Your task to perform on an android device: Search for seafood restaurants on Google Maps Image 0: 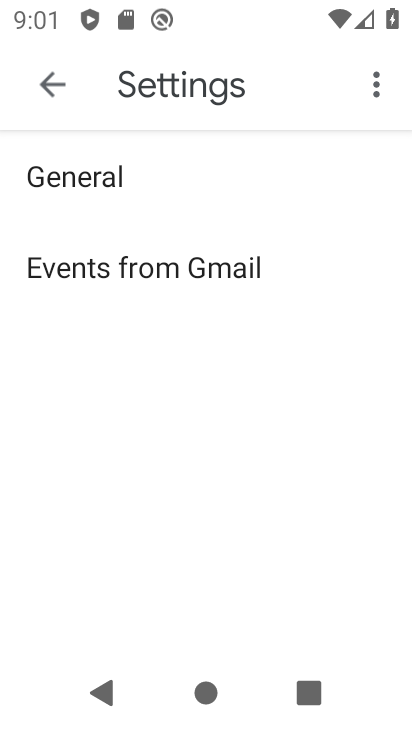
Step 0: press home button
Your task to perform on an android device: Search for seafood restaurants on Google Maps Image 1: 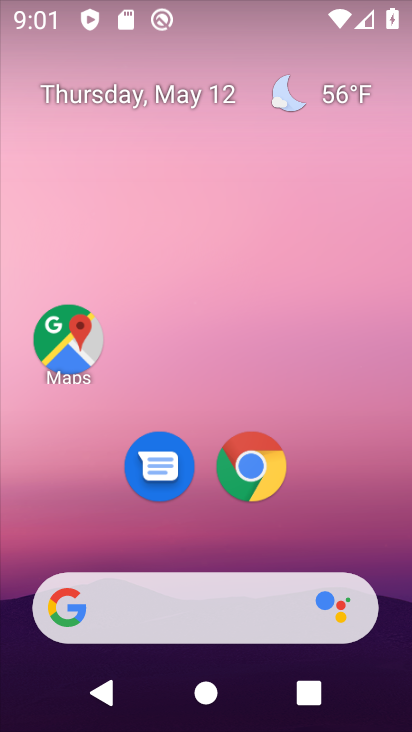
Step 1: click (89, 337)
Your task to perform on an android device: Search for seafood restaurants on Google Maps Image 2: 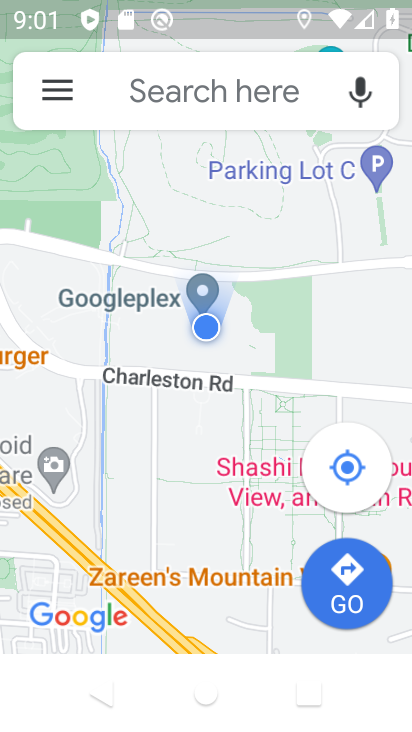
Step 2: click (177, 98)
Your task to perform on an android device: Search for seafood restaurants on Google Maps Image 3: 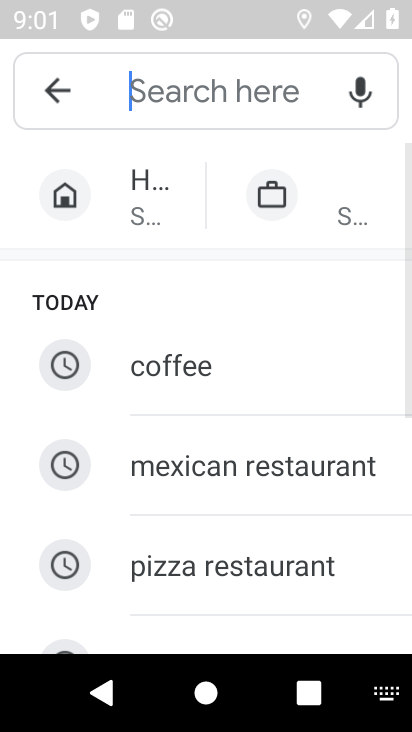
Step 3: drag from (287, 564) to (280, 245)
Your task to perform on an android device: Search for seafood restaurants on Google Maps Image 4: 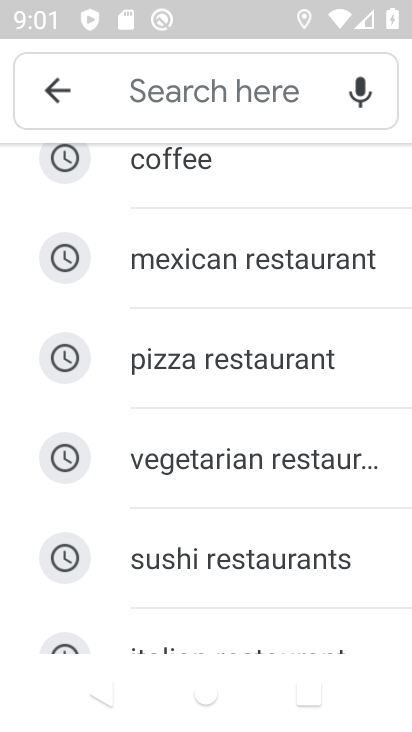
Step 4: drag from (256, 595) to (257, 290)
Your task to perform on an android device: Search for seafood restaurants on Google Maps Image 5: 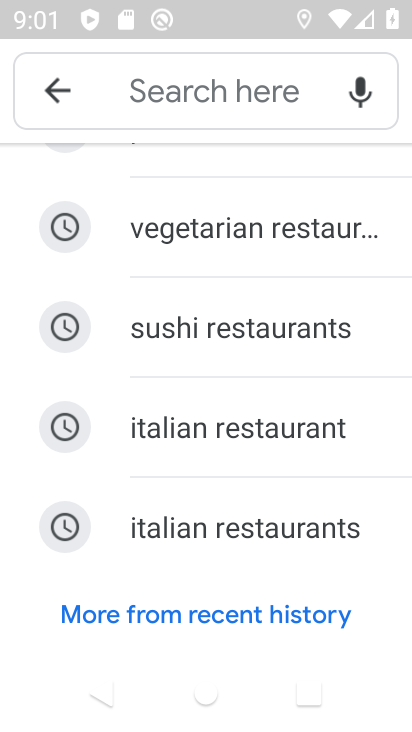
Step 5: click (210, 622)
Your task to perform on an android device: Search for seafood restaurants on Google Maps Image 6: 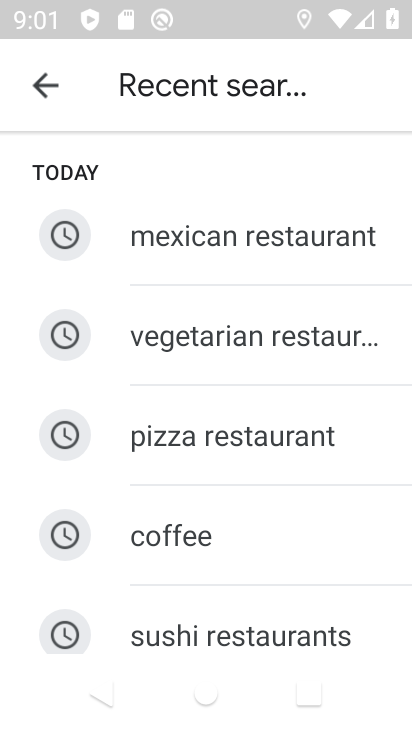
Step 6: drag from (212, 608) to (196, 219)
Your task to perform on an android device: Search for seafood restaurants on Google Maps Image 7: 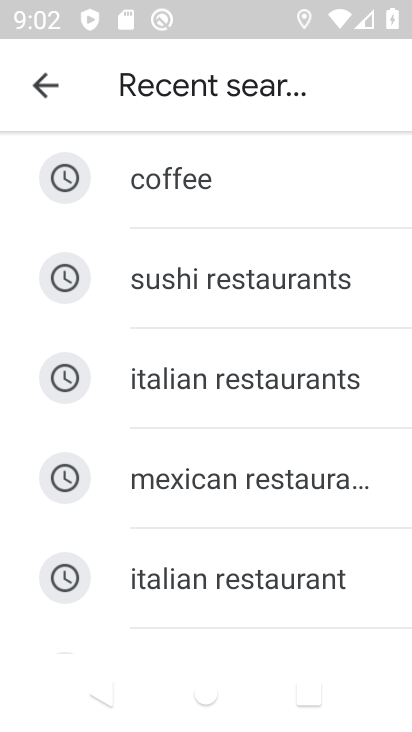
Step 7: drag from (237, 563) to (215, 286)
Your task to perform on an android device: Search for seafood restaurants on Google Maps Image 8: 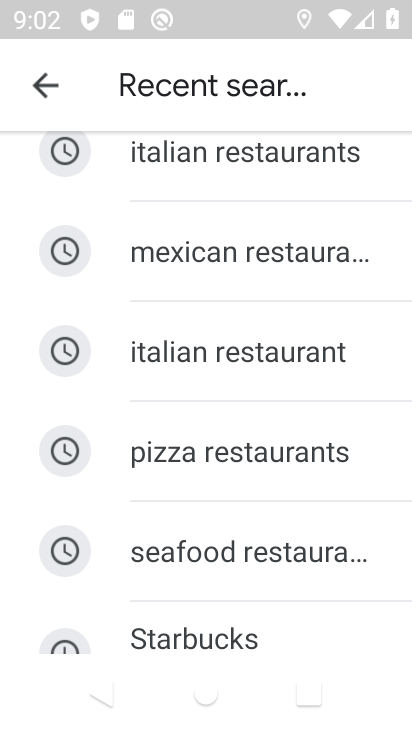
Step 8: click (239, 561)
Your task to perform on an android device: Search for seafood restaurants on Google Maps Image 9: 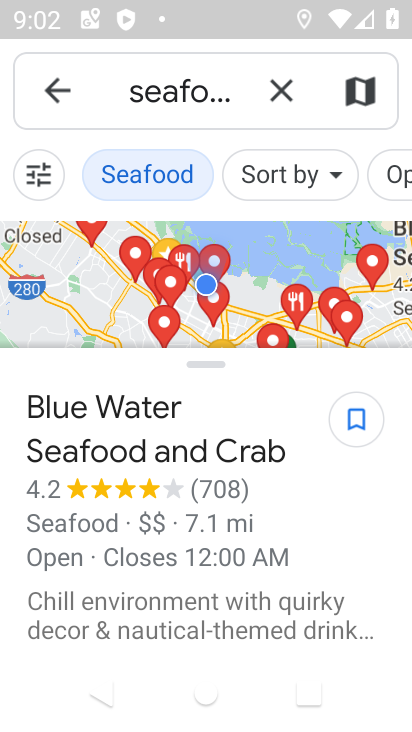
Step 9: task complete